Your task to perform on an android device: find photos in the google photos app Image 0: 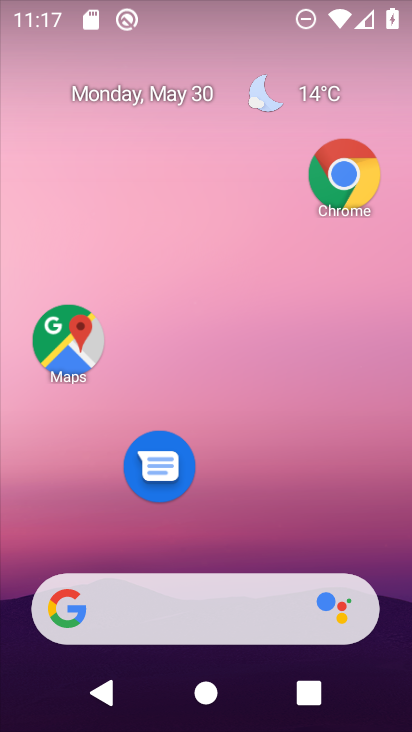
Step 0: drag from (238, 490) to (238, 31)
Your task to perform on an android device: find photos in the google photos app Image 1: 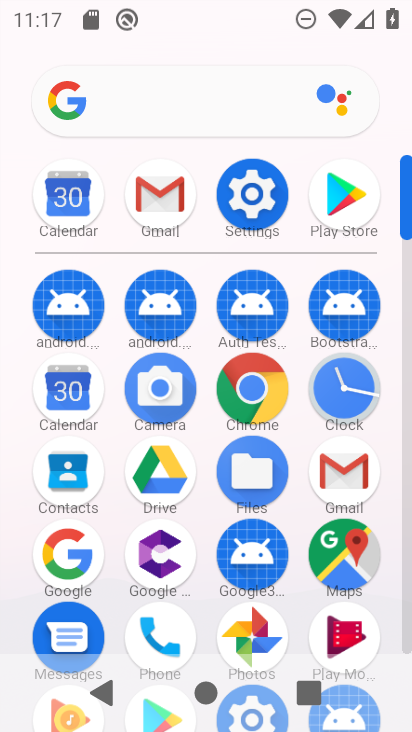
Step 1: click (236, 620)
Your task to perform on an android device: find photos in the google photos app Image 2: 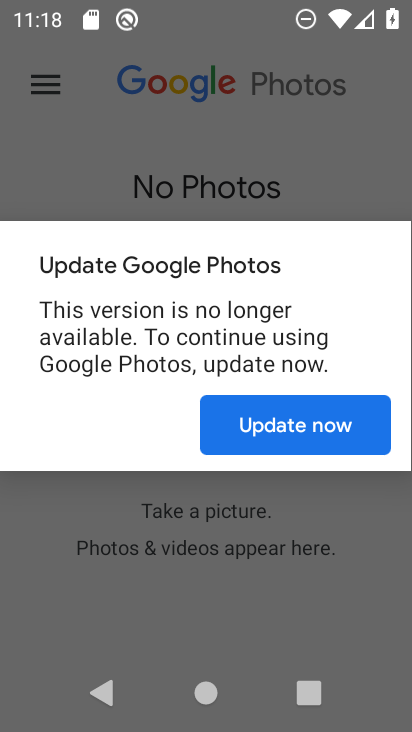
Step 2: click (309, 435)
Your task to perform on an android device: find photos in the google photos app Image 3: 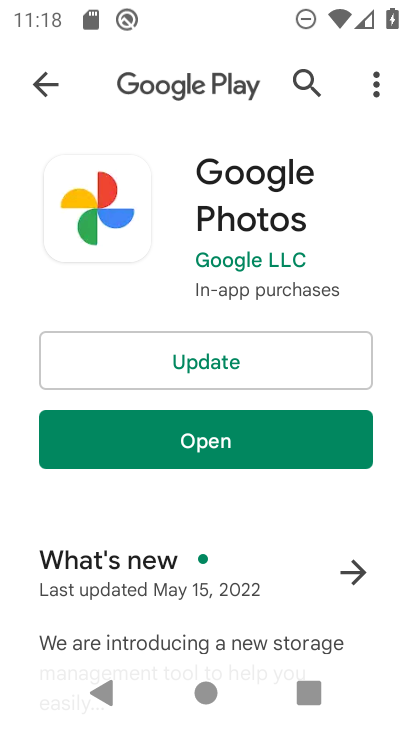
Step 3: click (274, 355)
Your task to perform on an android device: find photos in the google photos app Image 4: 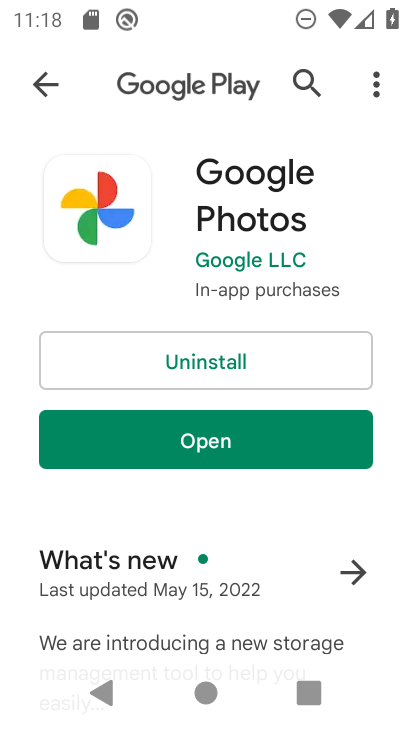
Step 4: click (233, 442)
Your task to perform on an android device: find photos in the google photos app Image 5: 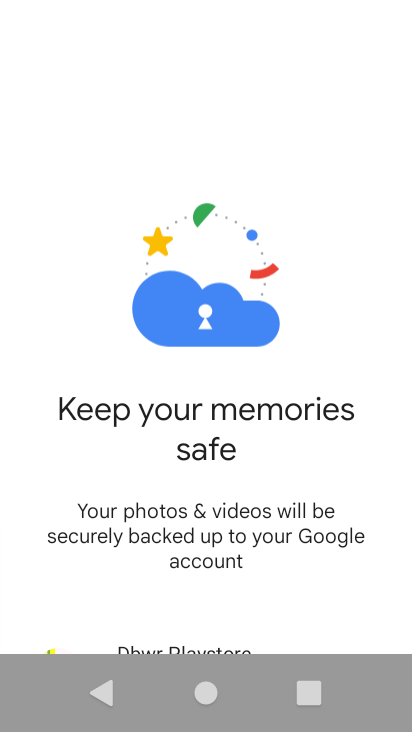
Step 5: drag from (235, 625) to (184, 247)
Your task to perform on an android device: find photos in the google photos app Image 6: 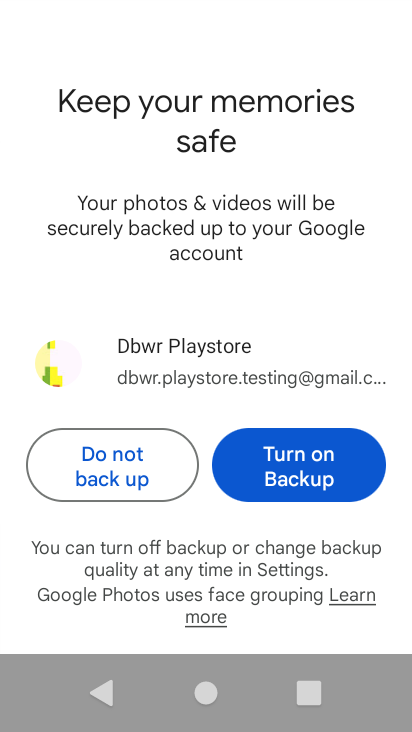
Step 6: click (304, 456)
Your task to perform on an android device: find photos in the google photos app Image 7: 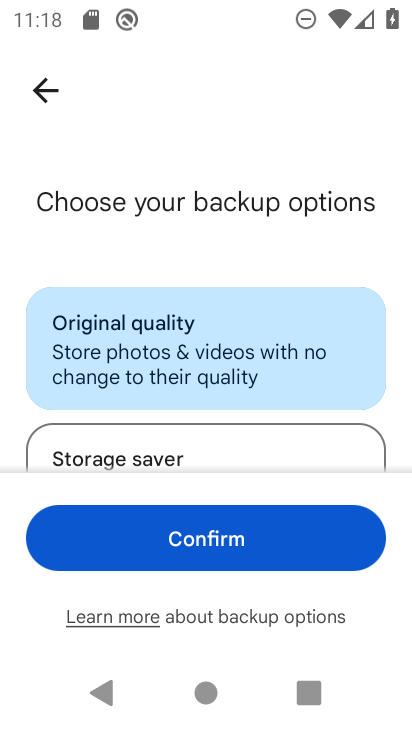
Step 7: click (237, 550)
Your task to perform on an android device: find photos in the google photos app Image 8: 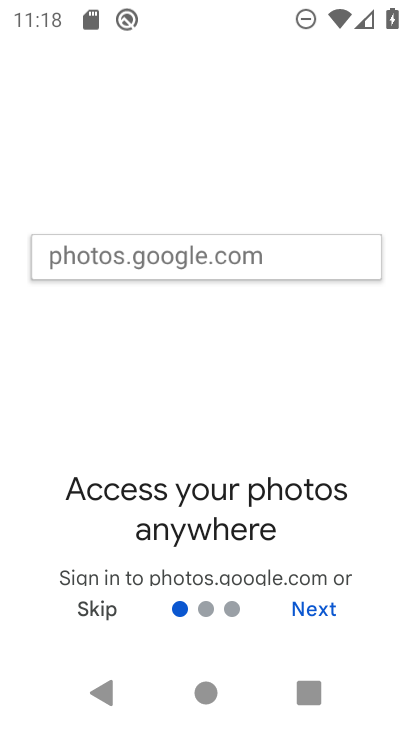
Step 8: click (298, 599)
Your task to perform on an android device: find photos in the google photos app Image 9: 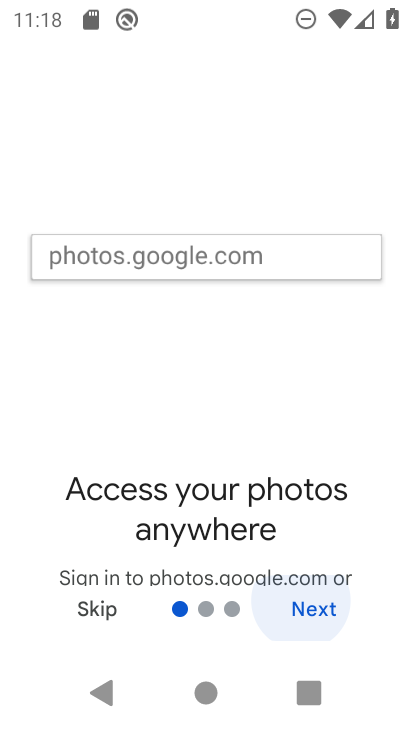
Step 9: click (298, 599)
Your task to perform on an android device: find photos in the google photos app Image 10: 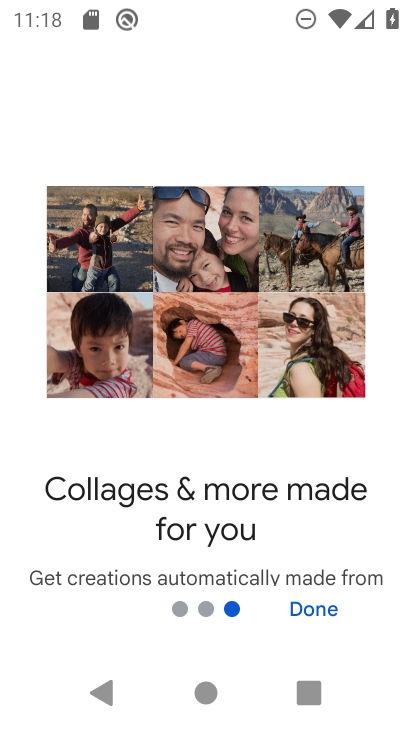
Step 10: click (298, 599)
Your task to perform on an android device: find photos in the google photos app Image 11: 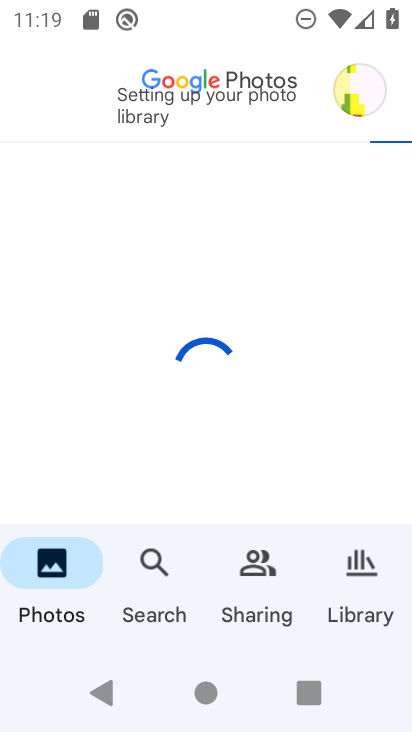
Step 11: task complete